Your task to perform on an android device: Open the calendar app, open the side menu, and click the "Day" option Image 0: 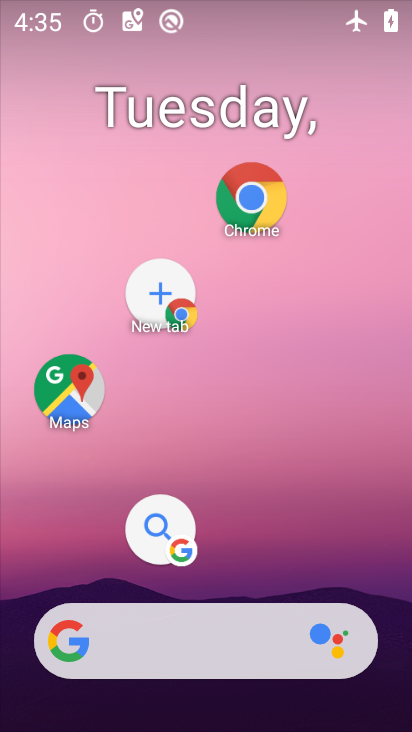
Step 0: drag from (241, 609) to (303, 156)
Your task to perform on an android device: Open the calendar app, open the side menu, and click the "Day" option Image 1: 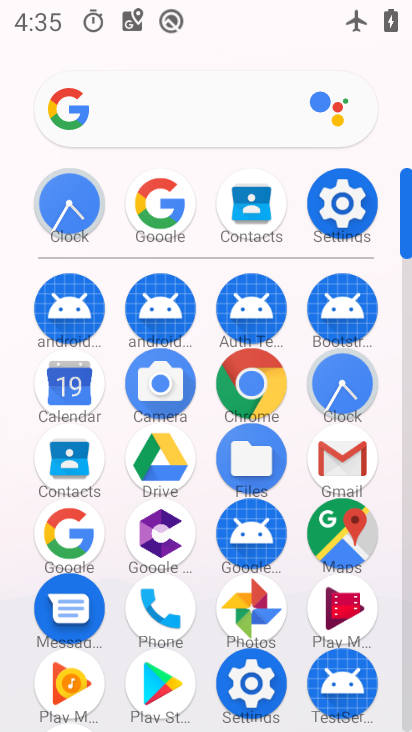
Step 1: click (78, 377)
Your task to perform on an android device: Open the calendar app, open the side menu, and click the "Day" option Image 2: 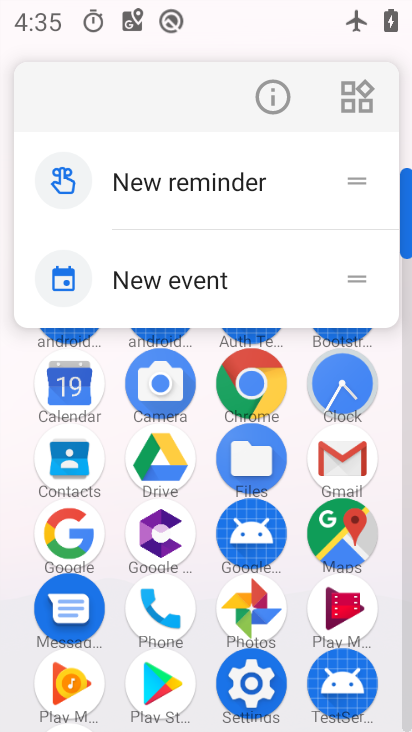
Step 2: click (74, 376)
Your task to perform on an android device: Open the calendar app, open the side menu, and click the "Day" option Image 3: 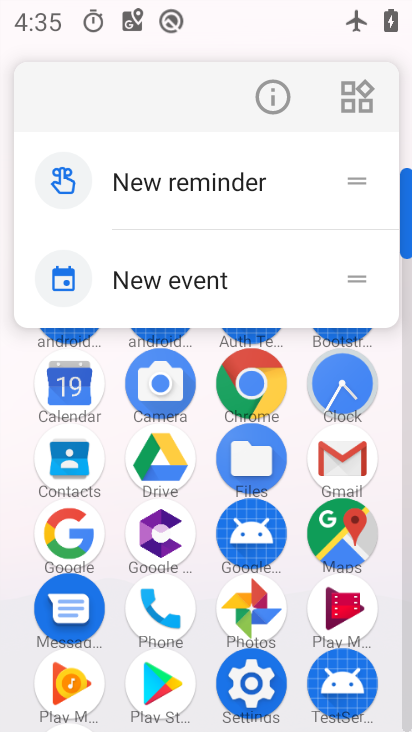
Step 3: click (65, 399)
Your task to perform on an android device: Open the calendar app, open the side menu, and click the "Day" option Image 4: 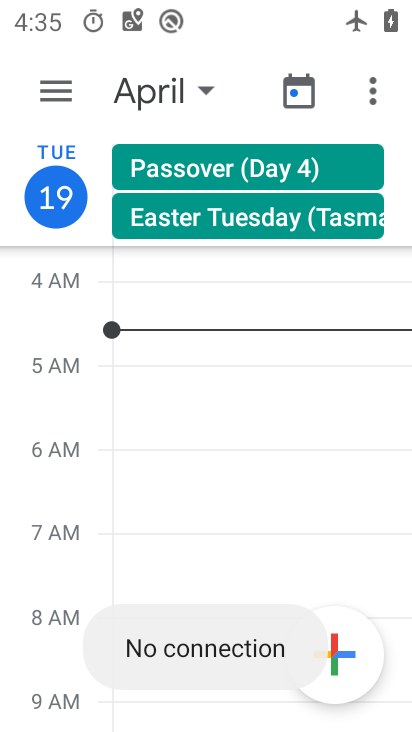
Step 4: click (85, 376)
Your task to perform on an android device: Open the calendar app, open the side menu, and click the "Day" option Image 5: 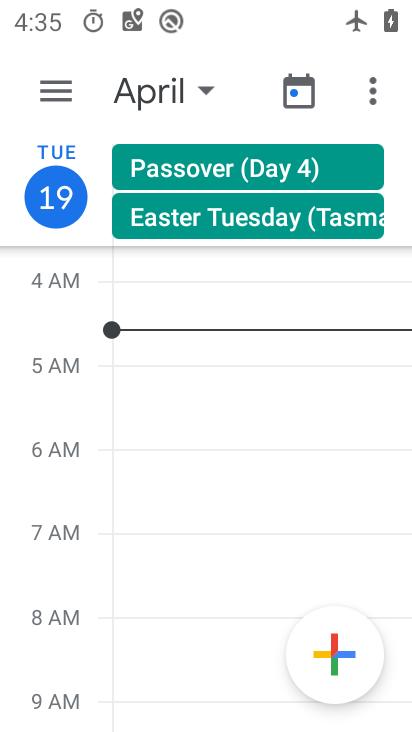
Step 5: click (63, 85)
Your task to perform on an android device: Open the calendar app, open the side menu, and click the "Day" option Image 6: 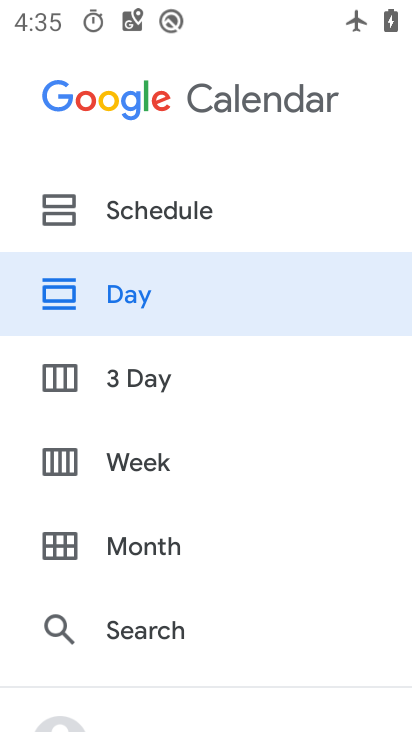
Step 6: click (163, 288)
Your task to perform on an android device: Open the calendar app, open the side menu, and click the "Day" option Image 7: 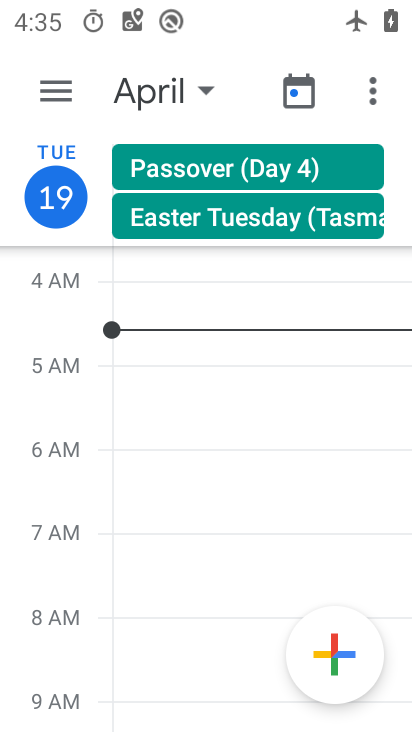
Step 7: task complete